Your task to perform on an android device: Search for hotels in Paris Image 0: 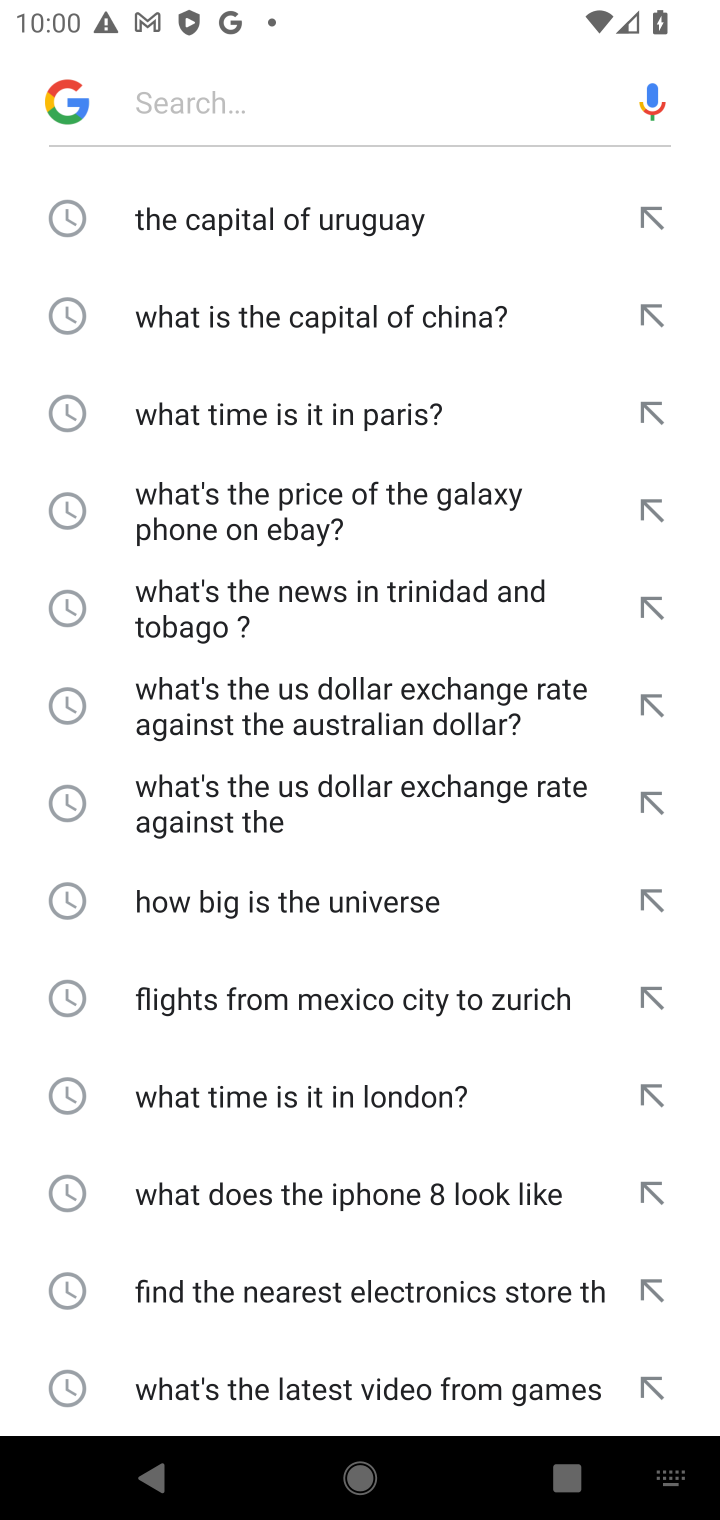
Step 0: type "hotels in Paris"
Your task to perform on an android device: Search for hotels in Paris Image 1: 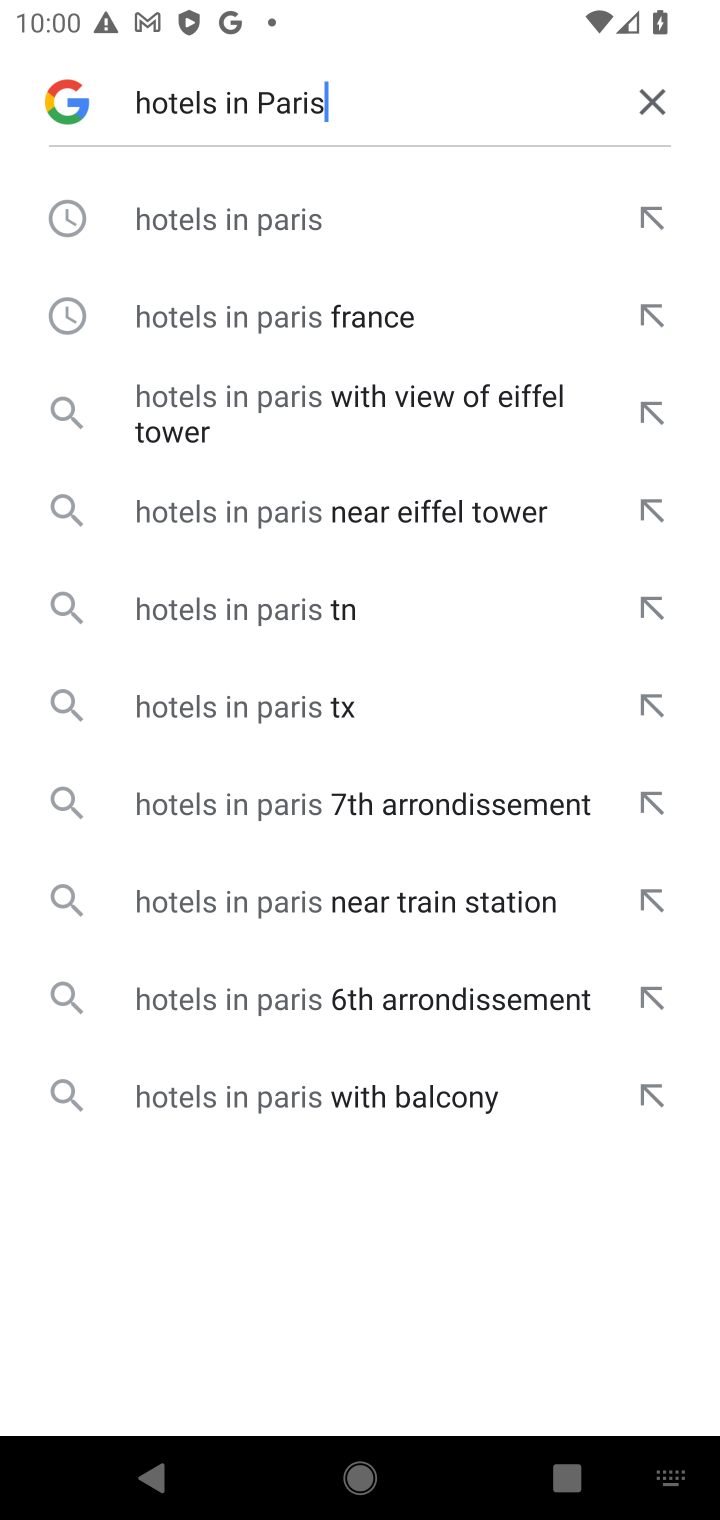
Step 1: press enter
Your task to perform on an android device: Search for hotels in Paris Image 2: 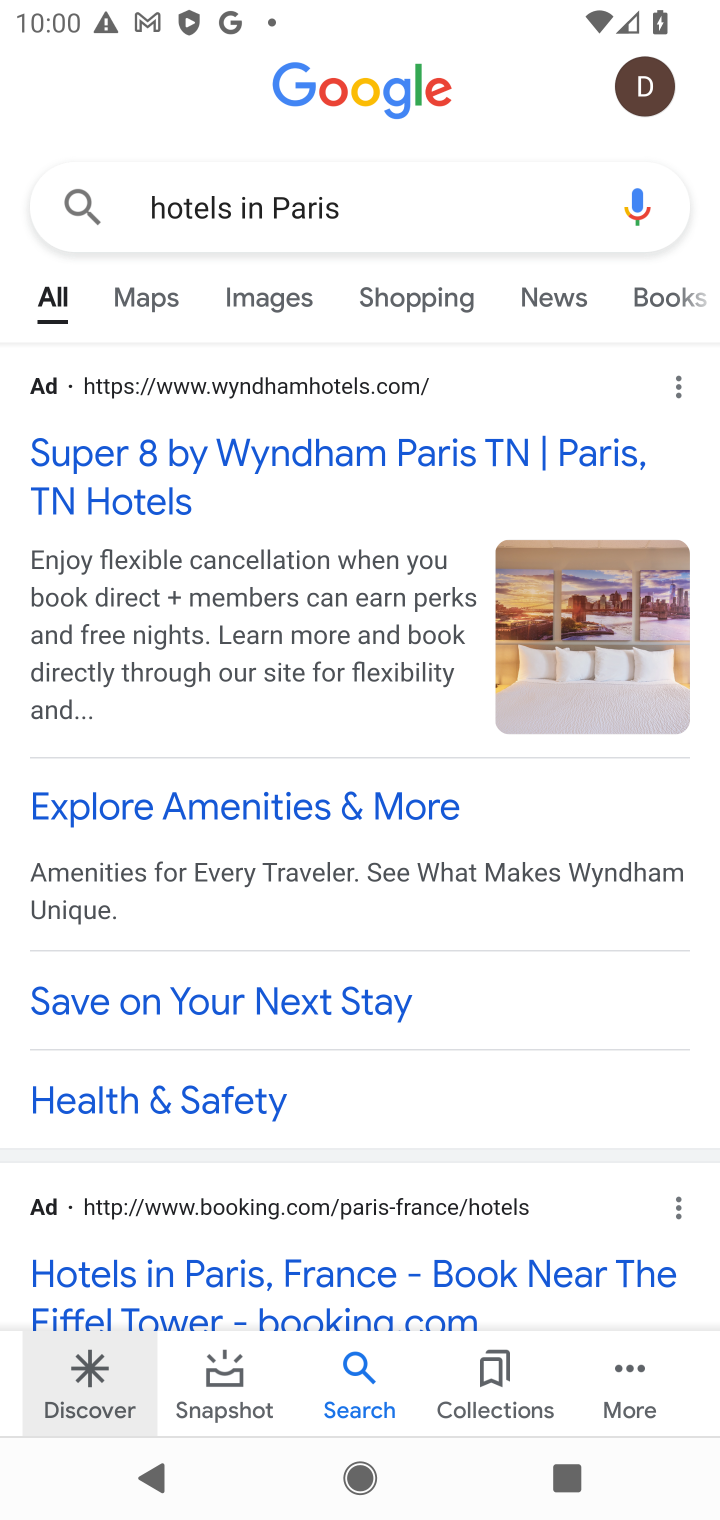
Step 2: task complete